Your task to perform on an android device: change the clock display to analog Image 0: 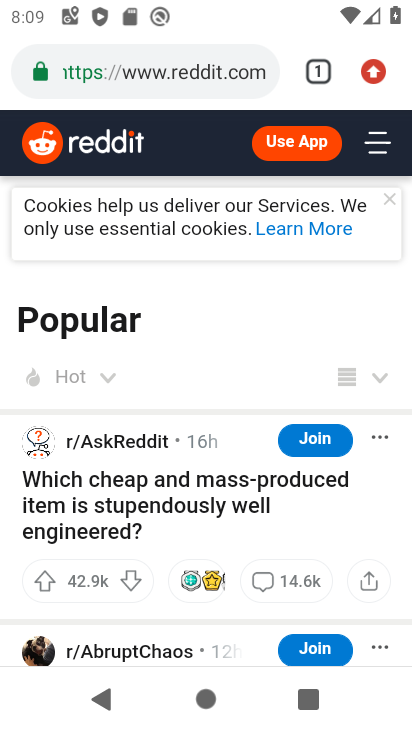
Step 0: press home button
Your task to perform on an android device: change the clock display to analog Image 1: 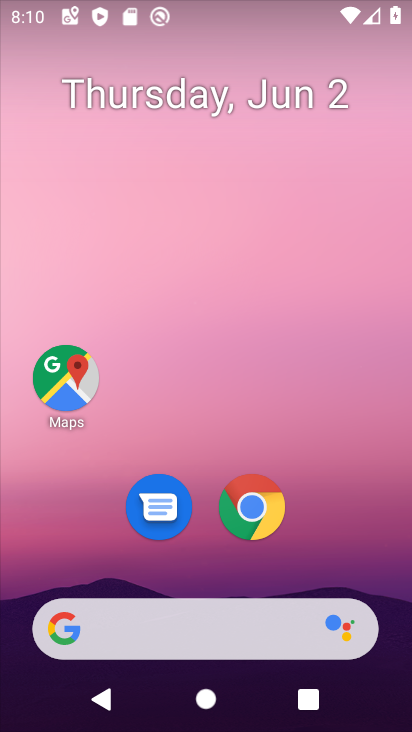
Step 1: drag from (126, 572) to (168, 314)
Your task to perform on an android device: change the clock display to analog Image 2: 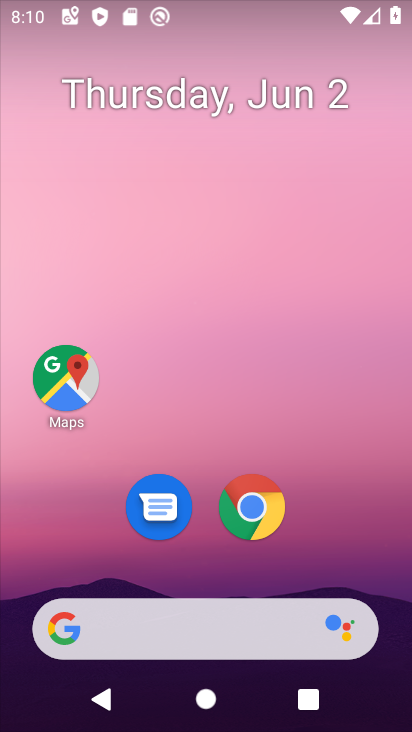
Step 2: drag from (100, 585) to (200, 251)
Your task to perform on an android device: change the clock display to analog Image 3: 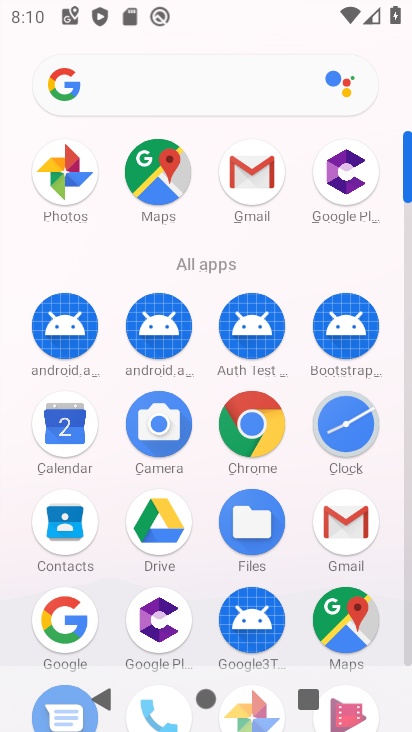
Step 3: click (344, 433)
Your task to perform on an android device: change the clock display to analog Image 4: 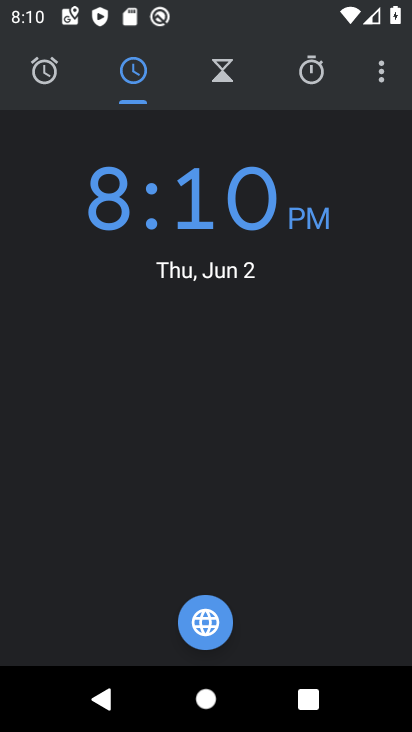
Step 4: click (385, 55)
Your task to perform on an android device: change the clock display to analog Image 5: 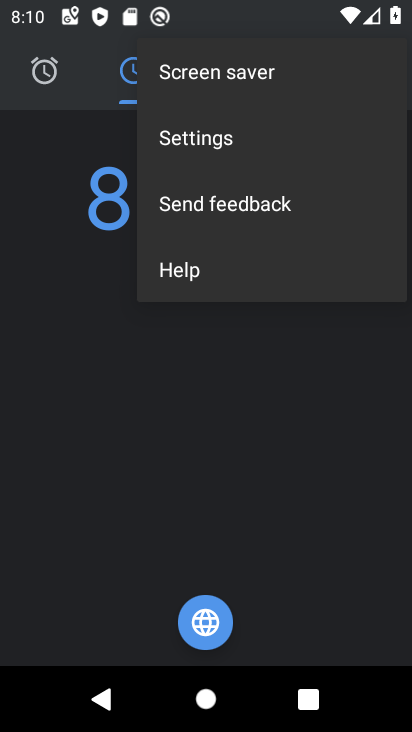
Step 5: click (335, 138)
Your task to perform on an android device: change the clock display to analog Image 6: 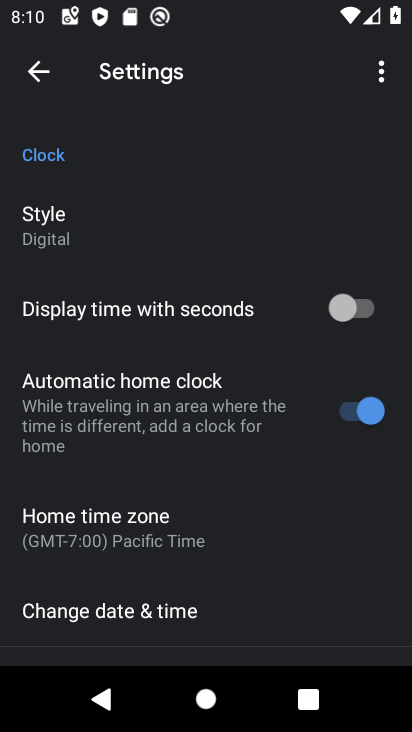
Step 6: click (122, 219)
Your task to perform on an android device: change the clock display to analog Image 7: 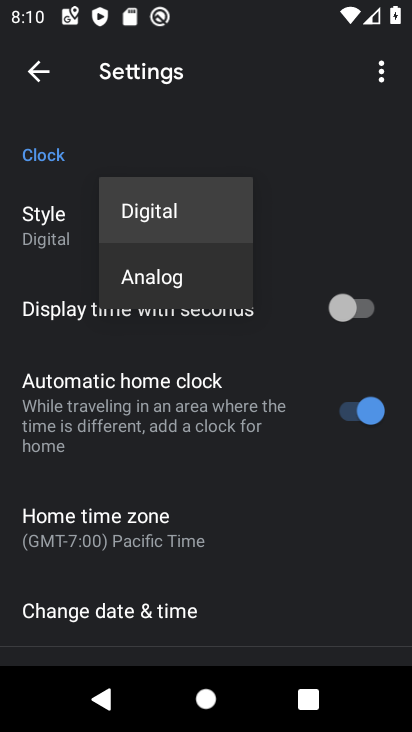
Step 7: click (176, 280)
Your task to perform on an android device: change the clock display to analog Image 8: 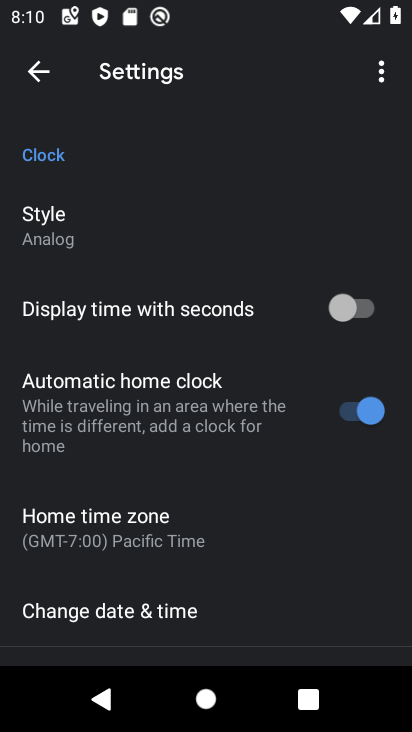
Step 8: task complete